Your task to perform on an android device: toggle priority inbox in the gmail app Image 0: 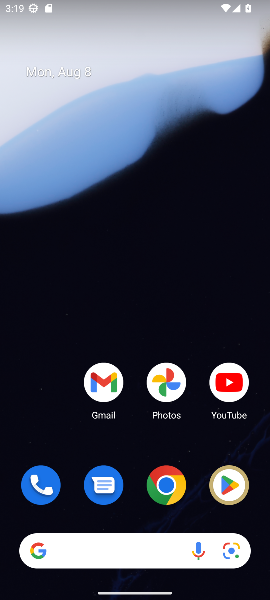
Step 0: drag from (78, 599) to (26, 105)
Your task to perform on an android device: toggle priority inbox in the gmail app Image 1: 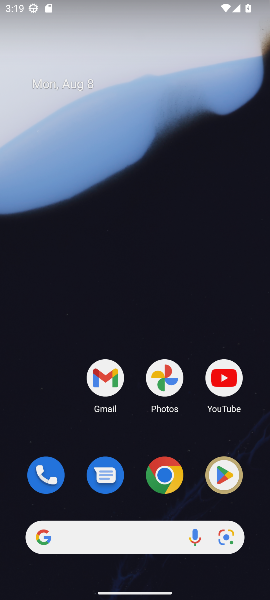
Step 1: drag from (161, 505) to (104, 40)
Your task to perform on an android device: toggle priority inbox in the gmail app Image 2: 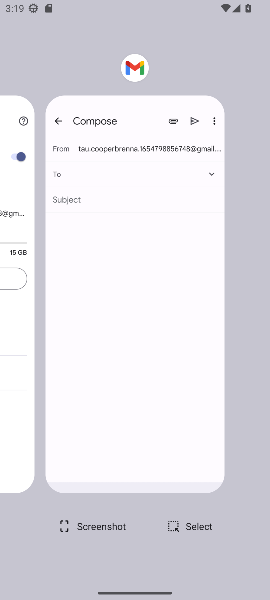
Step 2: press back button
Your task to perform on an android device: toggle priority inbox in the gmail app Image 3: 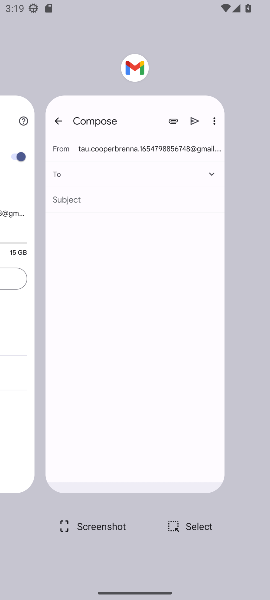
Step 3: press back button
Your task to perform on an android device: toggle priority inbox in the gmail app Image 4: 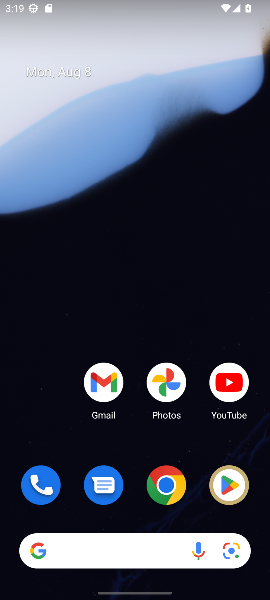
Step 4: press back button
Your task to perform on an android device: toggle priority inbox in the gmail app Image 5: 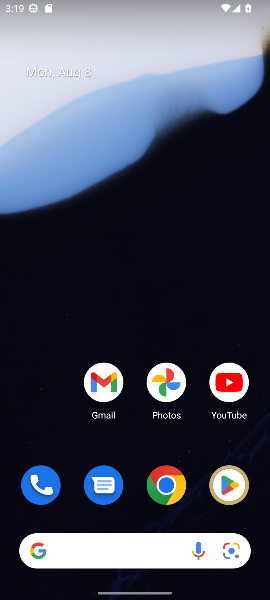
Step 5: press back button
Your task to perform on an android device: toggle priority inbox in the gmail app Image 6: 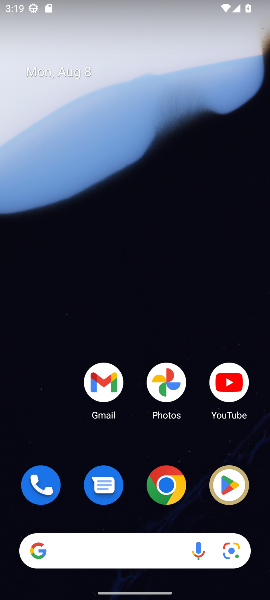
Step 6: press back button
Your task to perform on an android device: toggle priority inbox in the gmail app Image 7: 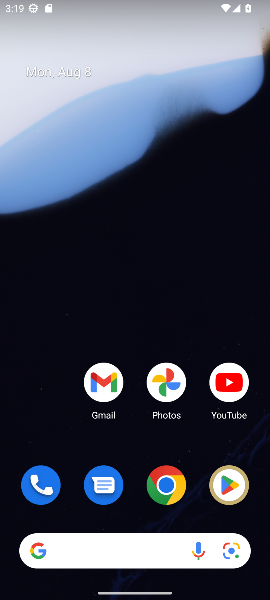
Step 7: press back button
Your task to perform on an android device: toggle priority inbox in the gmail app Image 8: 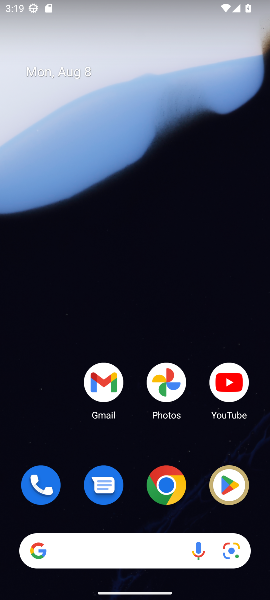
Step 8: drag from (172, 530) to (171, 59)
Your task to perform on an android device: toggle priority inbox in the gmail app Image 9: 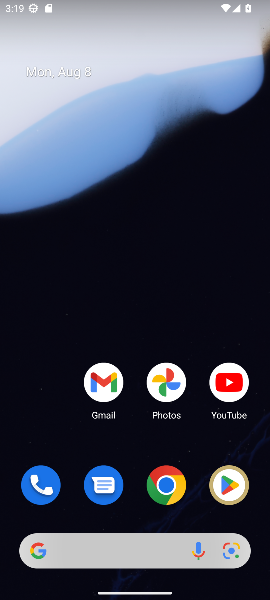
Step 9: drag from (158, 333) to (107, 44)
Your task to perform on an android device: toggle priority inbox in the gmail app Image 10: 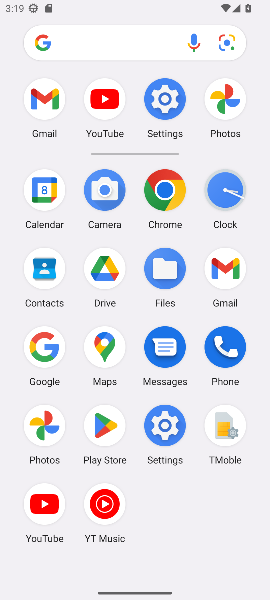
Step 10: click (205, 259)
Your task to perform on an android device: toggle priority inbox in the gmail app Image 11: 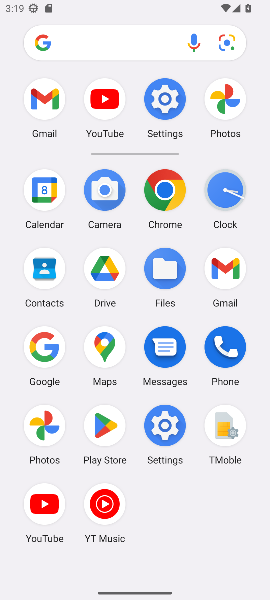
Step 11: click (205, 259)
Your task to perform on an android device: toggle priority inbox in the gmail app Image 12: 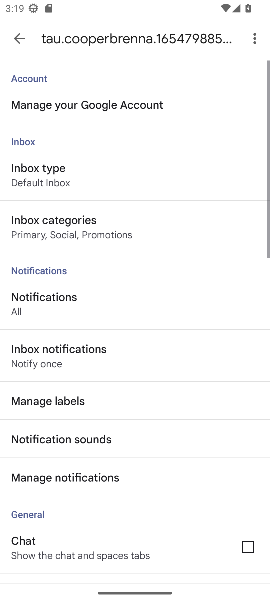
Step 12: click (223, 270)
Your task to perform on an android device: toggle priority inbox in the gmail app Image 13: 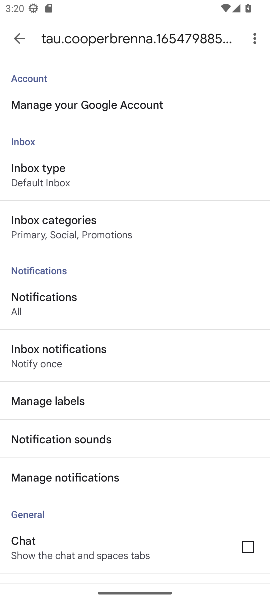
Step 13: click (36, 175)
Your task to perform on an android device: toggle priority inbox in the gmail app Image 14: 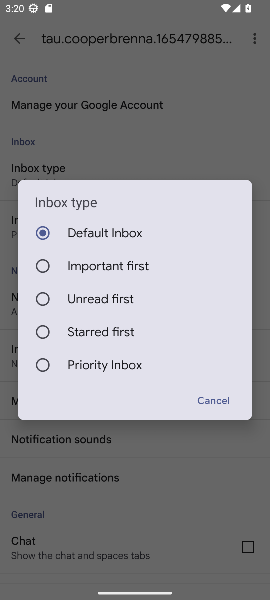
Step 14: click (46, 371)
Your task to perform on an android device: toggle priority inbox in the gmail app Image 15: 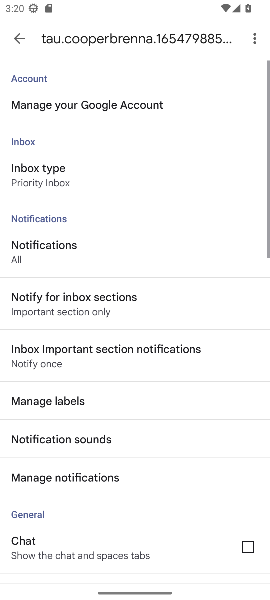
Step 15: task complete